Your task to perform on an android device: Open Reddit.com Image 0: 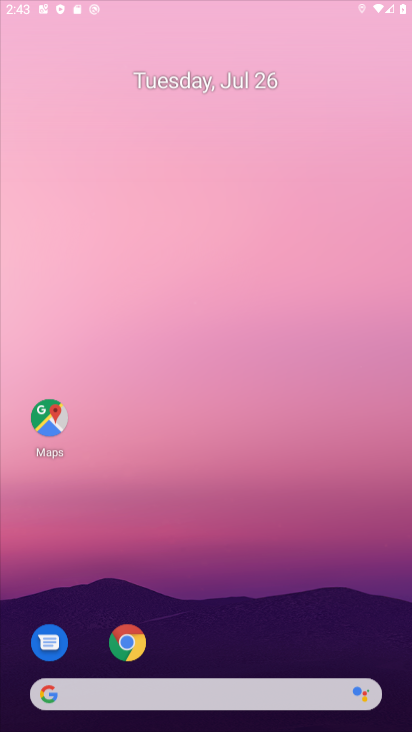
Step 0: press home button
Your task to perform on an android device: Open Reddit.com Image 1: 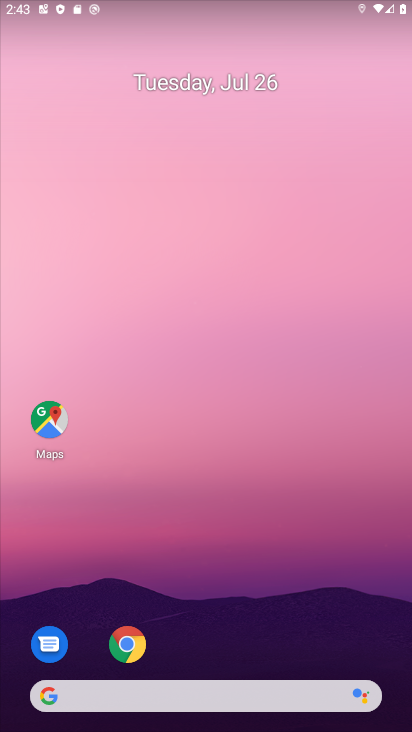
Step 1: click (50, 694)
Your task to perform on an android device: Open Reddit.com Image 2: 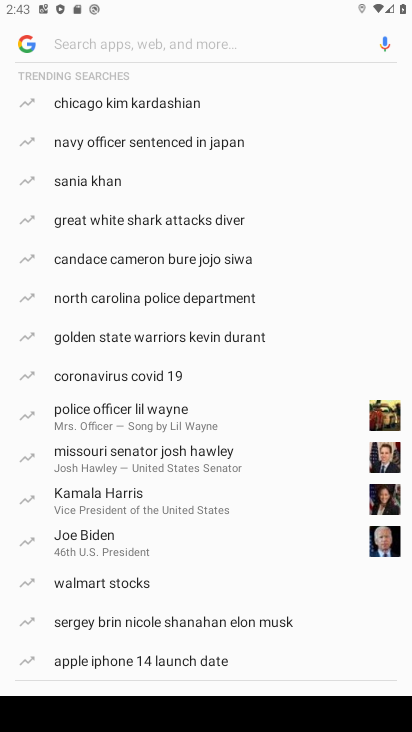
Step 2: type "Reddit.com"
Your task to perform on an android device: Open Reddit.com Image 3: 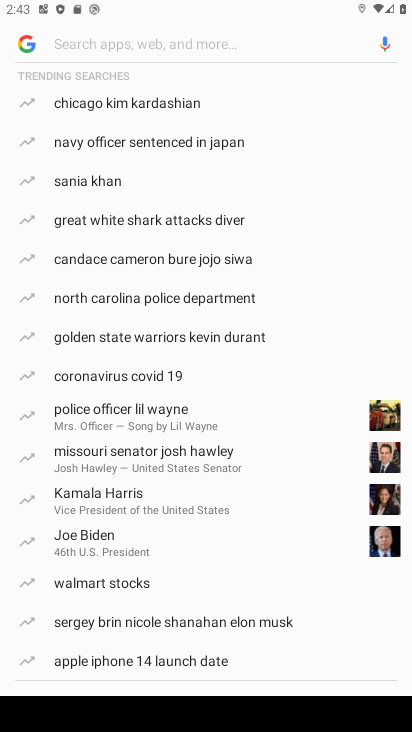
Step 3: click (87, 51)
Your task to perform on an android device: Open Reddit.com Image 4: 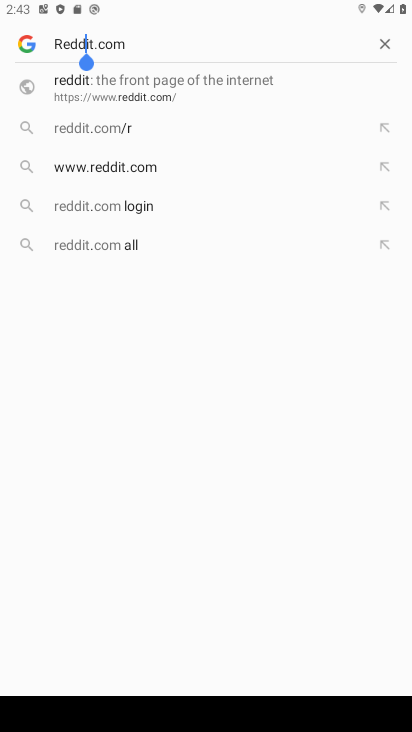
Step 4: click (93, 41)
Your task to perform on an android device: Open Reddit.com Image 5: 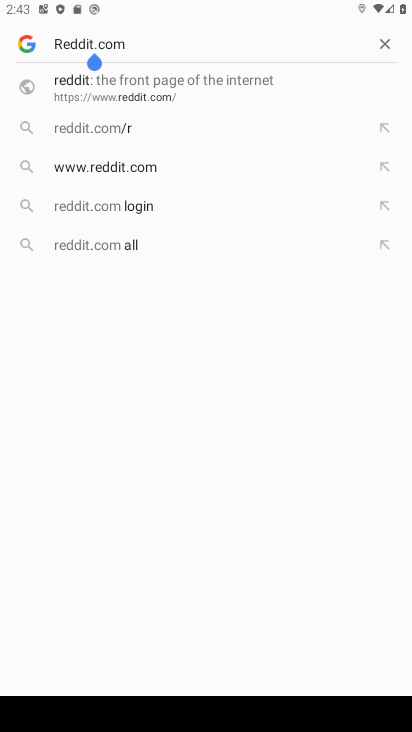
Step 5: click (177, 90)
Your task to perform on an android device: Open Reddit.com Image 6: 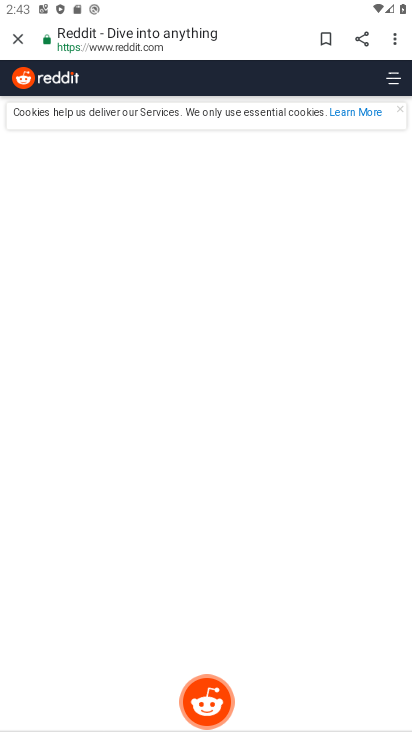
Step 6: task complete